Your task to perform on an android device: turn on javascript in the chrome app Image 0: 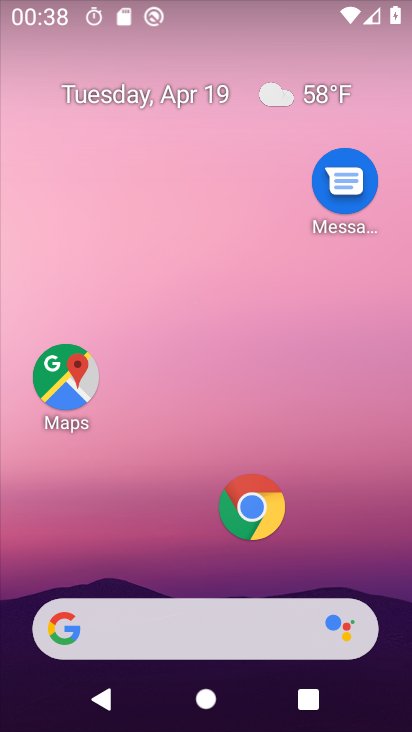
Step 0: click (255, 496)
Your task to perform on an android device: turn on javascript in the chrome app Image 1: 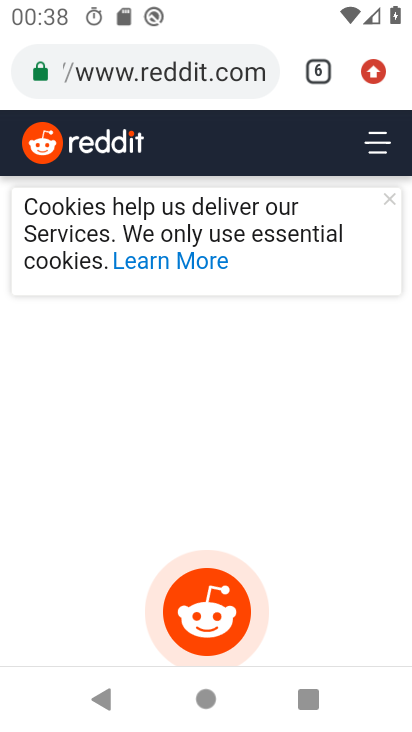
Step 1: click (382, 69)
Your task to perform on an android device: turn on javascript in the chrome app Image 2: 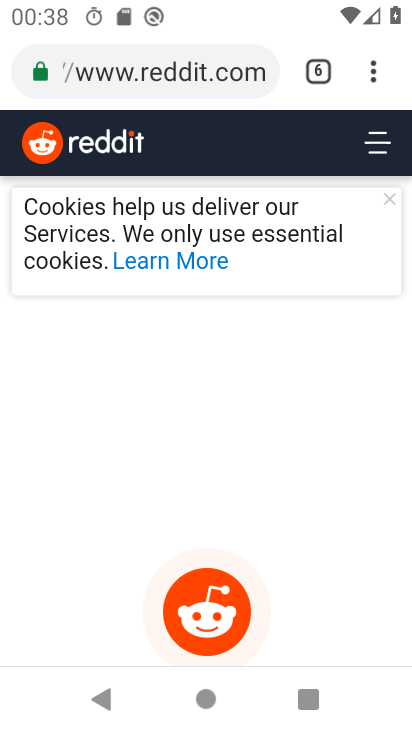
Step 2: click (371, 73)
Your task to perform on an android device: turn on javascript in the chrome app Image 3: 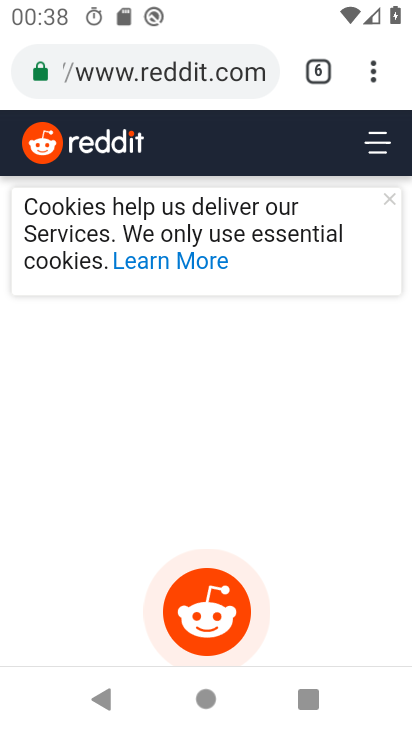
Step 3: click (370, 82)
Your task to perform on an android device: turn on javascript in the chrome app Image 4: 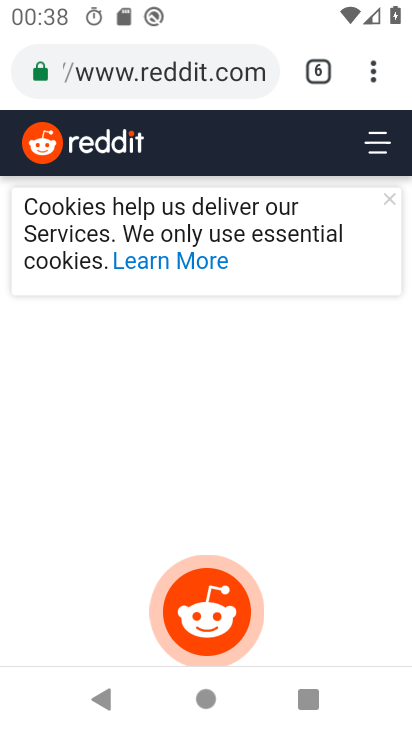
Step 4: click (377, 59)
Your task to perform on an android device: turn on javascript in the chrome app Image 5: 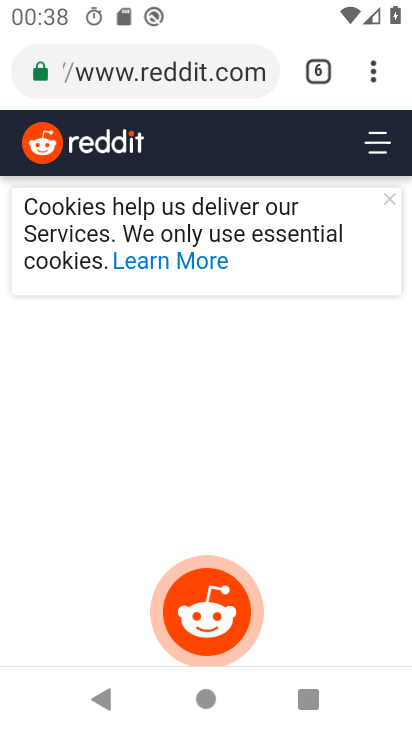
Step 5: click (361, 69)
Your task to perform on an android device: turn on javascript in the chrome app Image 6: 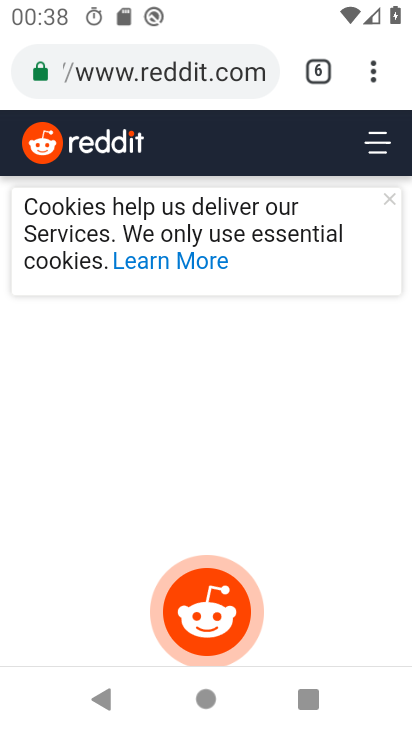
Step 6: click (379, 66)
Your task to perform on an android device: turn on javascript in the chrome app Image 7: 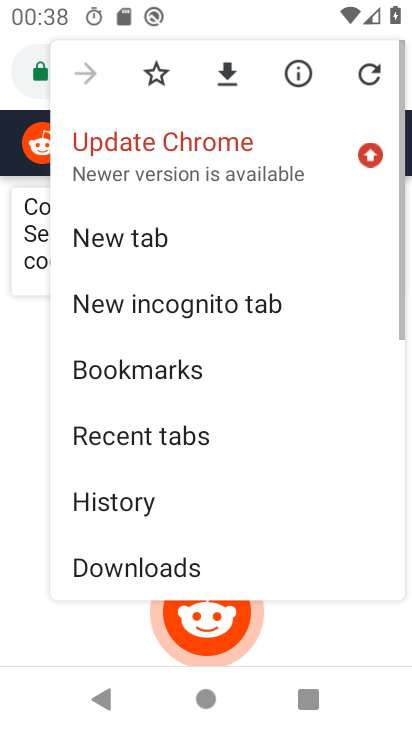
Step 7: drag from (187, 353) to (219, 28)
Your task to perform on an android device: turn on javascript in the chrome app Image 8: 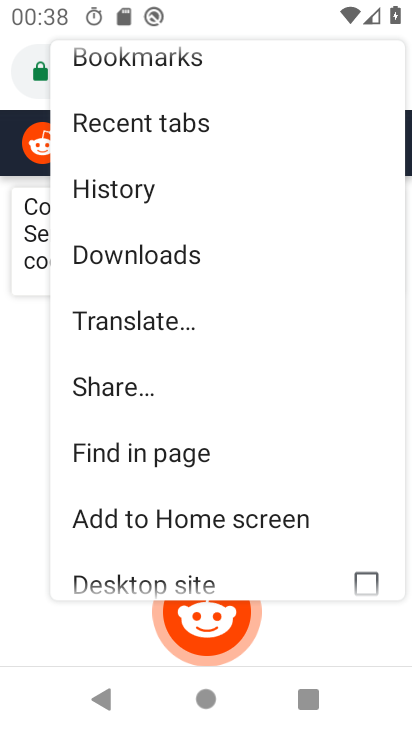
Step 8: drag from (153, 501) to (203, 237)
Your task to perform on an android device: turn on javascript in the chrome app Image 9: 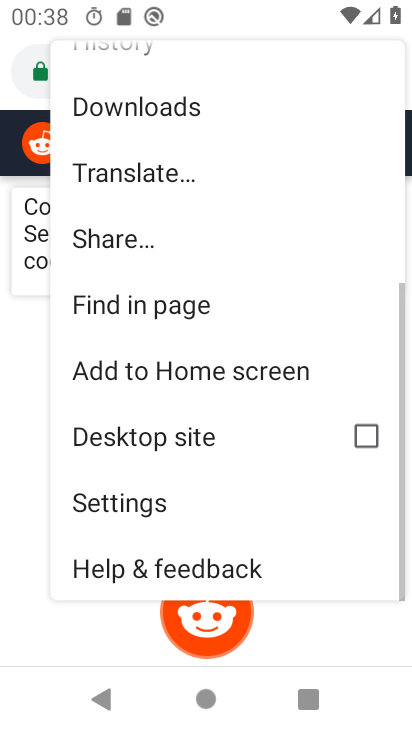
Step 9: click (132, 508)
Your task to perform on an android device: turn on javascript in the chrome app Image 10: 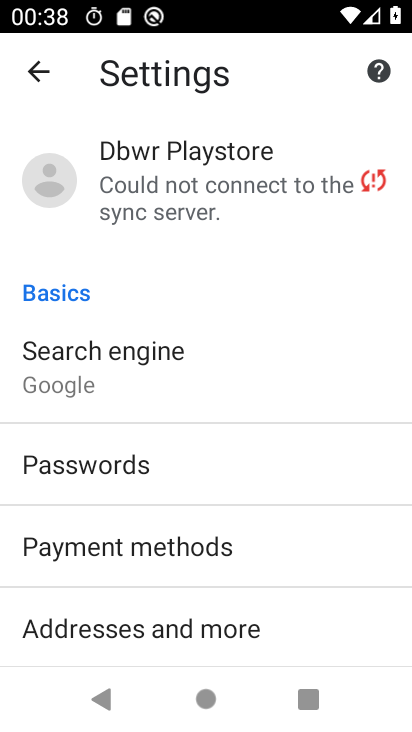
Step 10: drag from (115, 512) to (254, 66)
Your task to perform on an android device: turn on javascript in the chrome app Image 11: 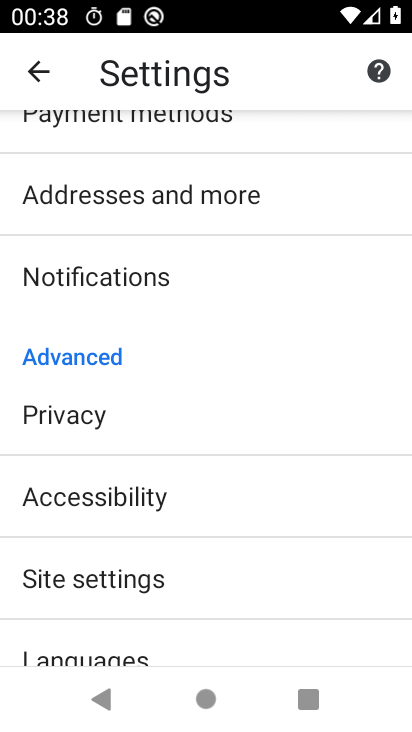
Step 11: drag from (75, 556) to (103, 408)
Your task to perform on an android device: turn on javascript in the chrome app Image 12: 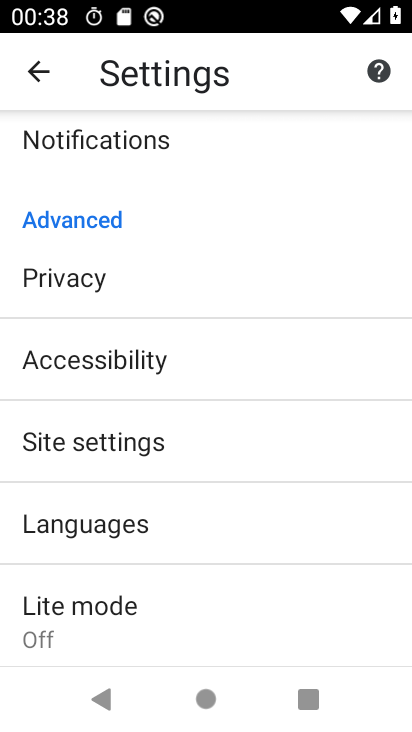
Step 12: click (79, 449)
Your task to perform on an android device: turn on javascript in the chrome app Image 13: 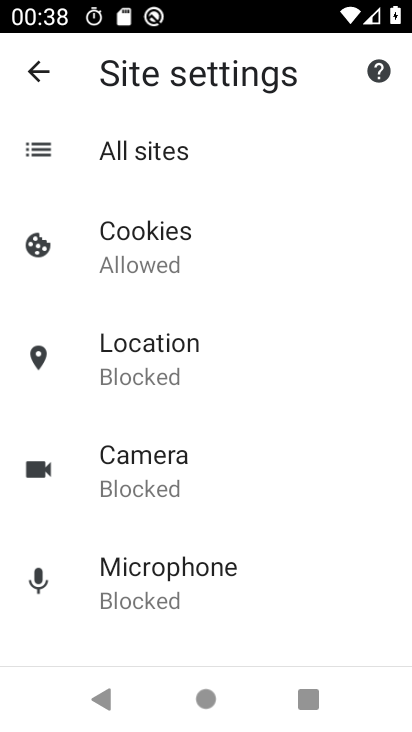
Step 13: drag from (159, 502) to (203, 212)
Your task to perform on an android device: turn on javascript in the chrome app Image 14: 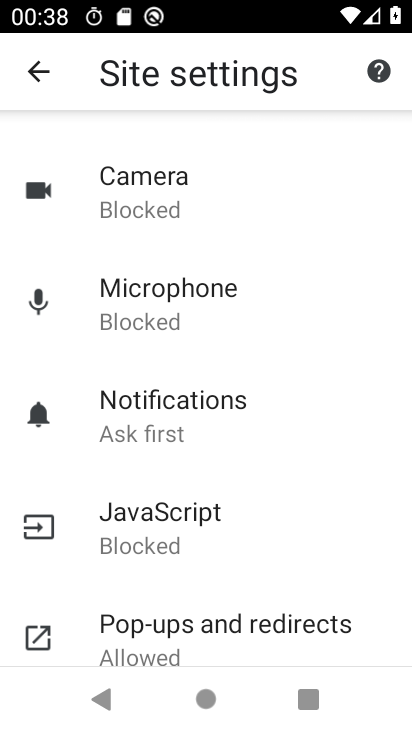
Step 14: click (147, 542)
Your task to perform on an android device: turn on javascript in the chrome app Image 15: 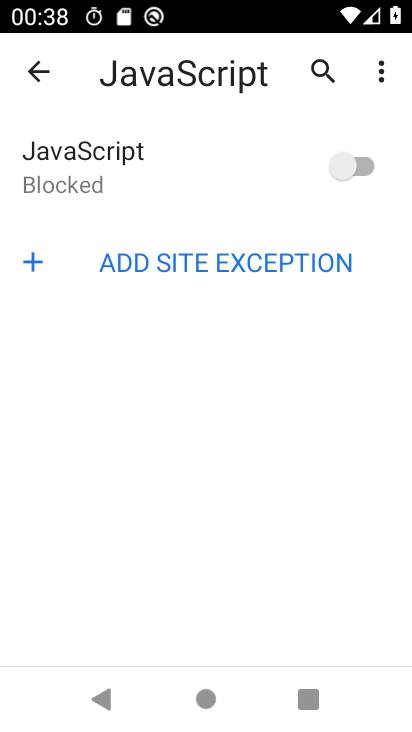
Step 15: click (360, 154)
Your task to perform on an android device: turn on javascript in the chrome app Image 16: 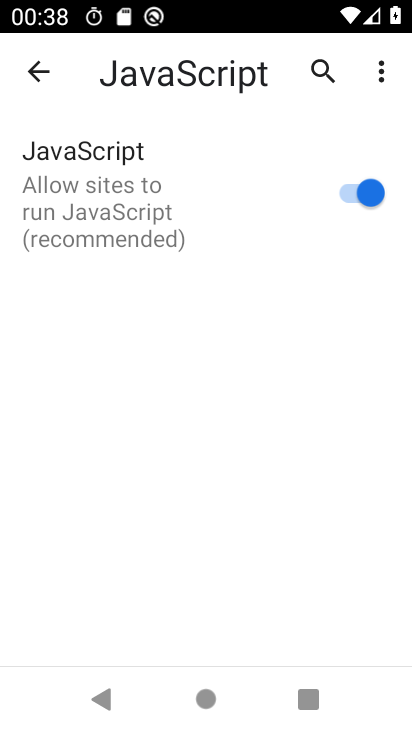
Step 16: task complete